Your task to perform on an android device: Open settings on Google Maps Image 0: 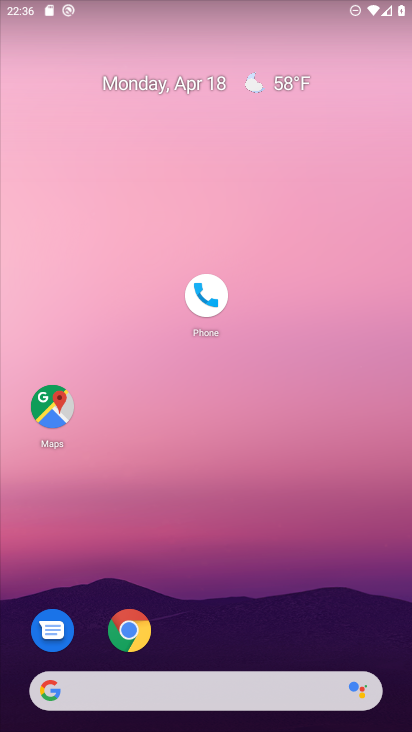
Step 0: drag from (289, 611) to (354, 69)
Your task to perform on an android device: Open settings on Google Maps Image 1: 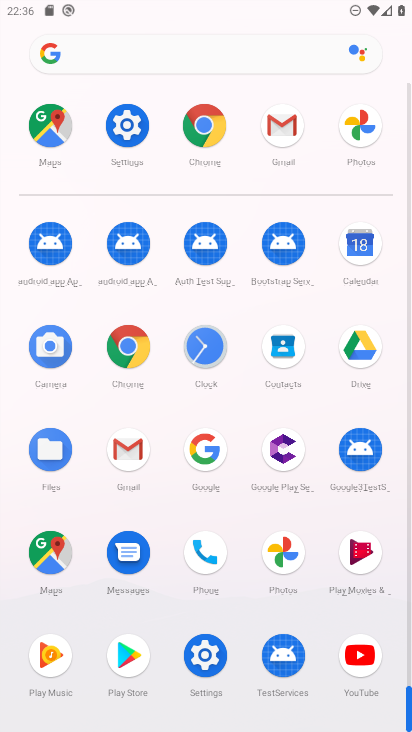
Step 1: click (41, 549)
Your task to perform on an android device: Open settings on Google Maps Image 2: 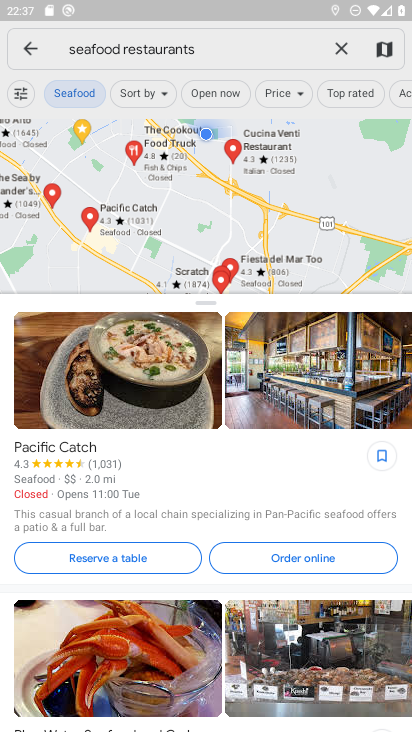
Step 2: click (29, 43)
Your task to perform on an android device: Open settings on Google Maps Image 3: 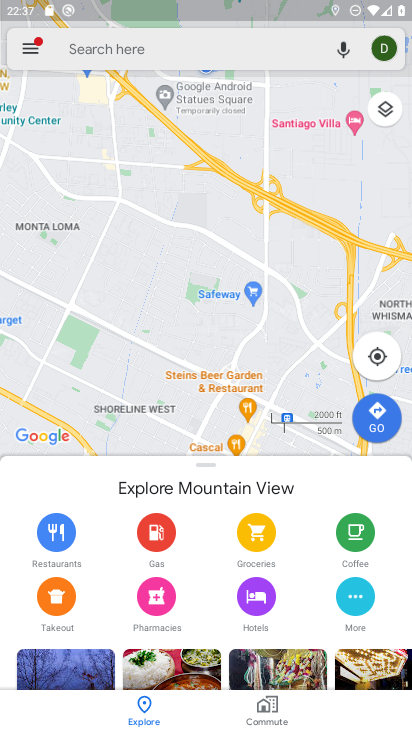
Step 3: click (29, 42)
Your task to perform on an android device: Open settings on Google Maps Image 4: 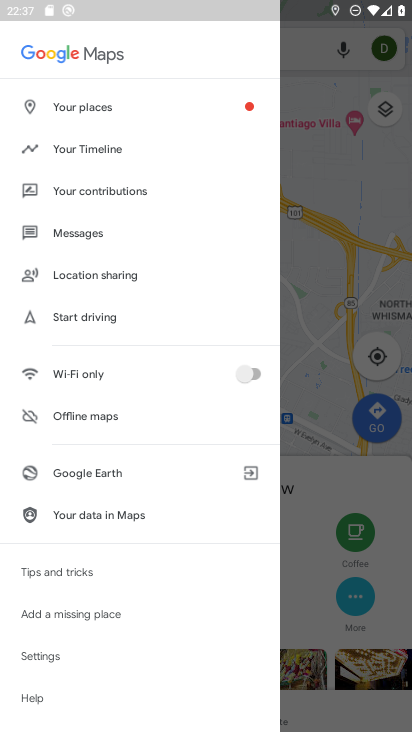
Step 4: click (66, 660)
Your task to perform on an android device: Open settings on Google Maps Image 5: 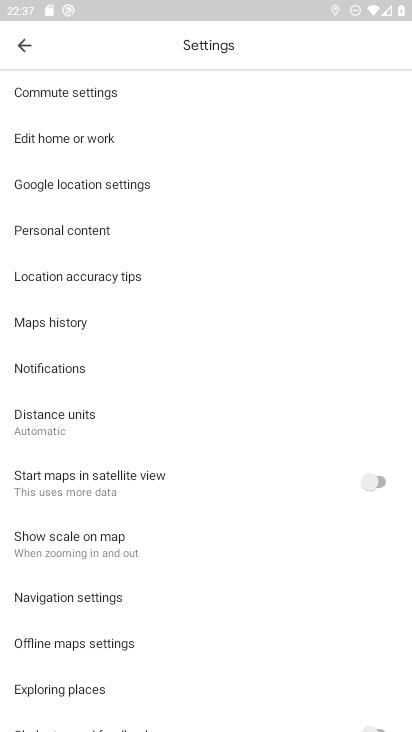
Step 5: task complete